Your task to perform on an android device: check out phone information Image 0: 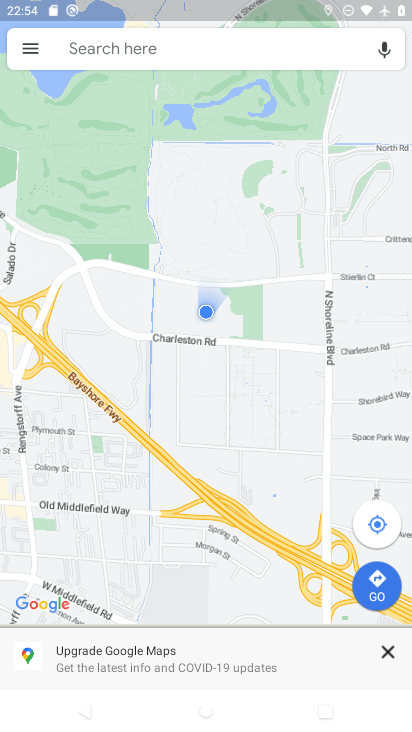
Step 0: press home button
Your task to perform on an android device: check out phone information Image 1: 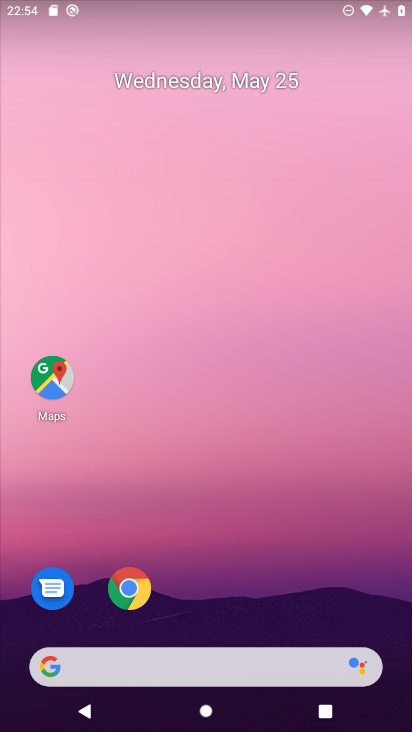
Step 1: drag from (246, 500) to (302, 6)
Your task to perform on an android device: check out phone information Image 2: 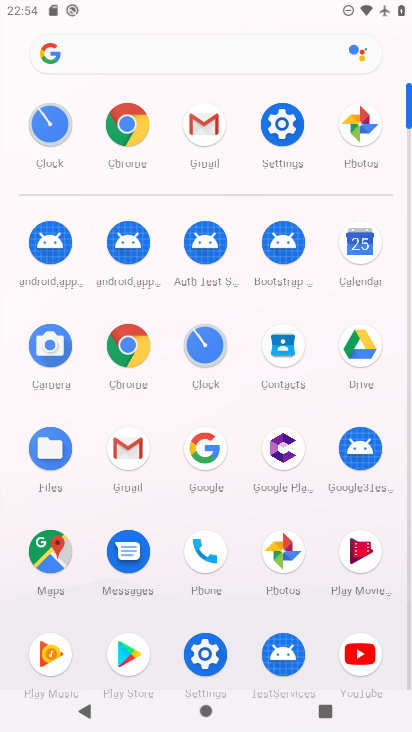
Step 2: click (200, 549)
Your task to perform on an android device: check out phone information Image 3: 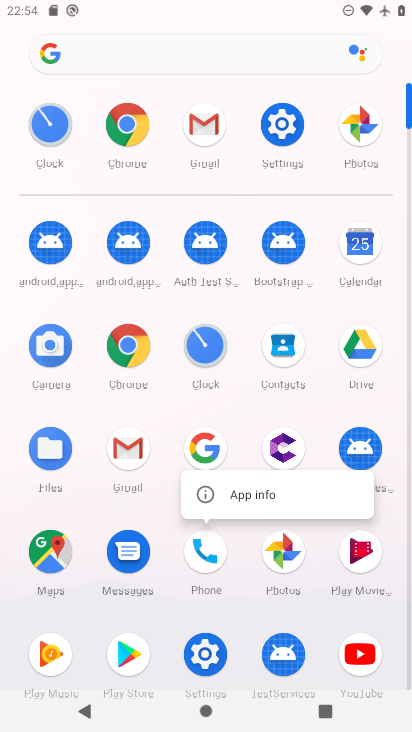
Step 3: click (219, 497)
Your task to perform on an android device: check out phone information Image 4: 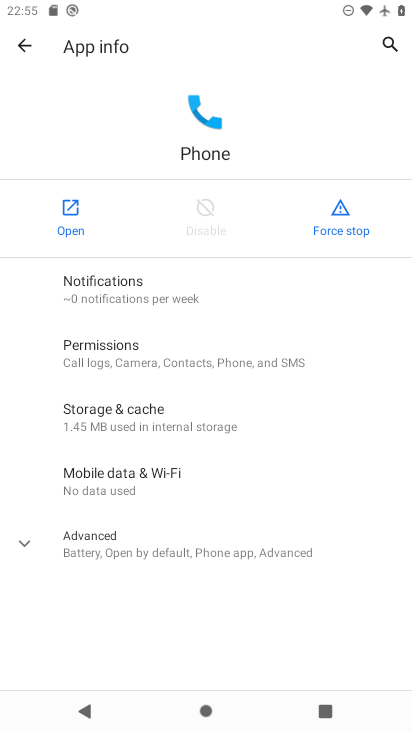
Step 4: task complete